Your task to perform on an android device: Add "macbook" to the cart on target, then select checkout. Image 0: 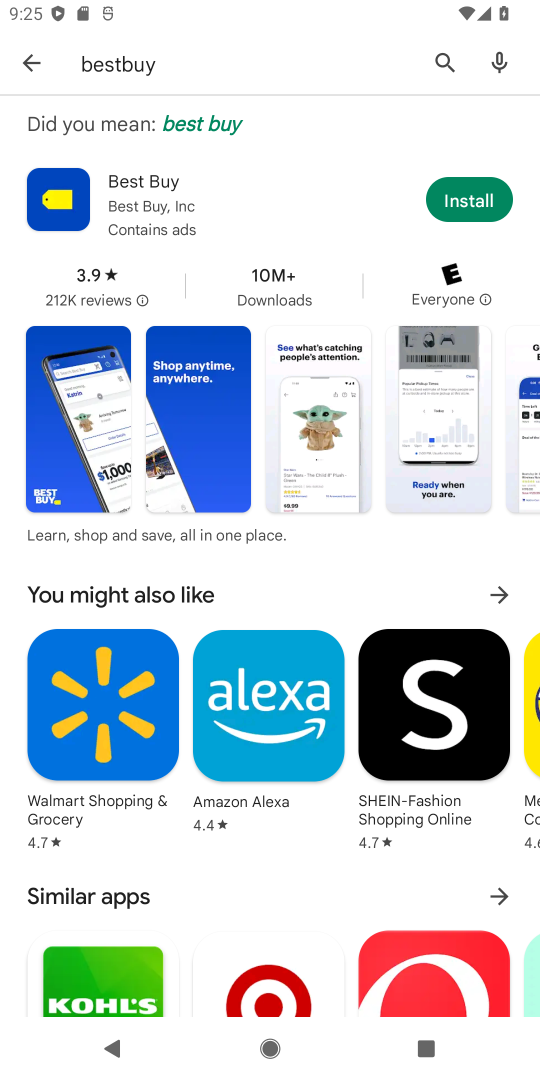
Step 0: press home button
Your task to perform on an android device: Add "macbook" to the cart on target, then select checkout. Image 1: 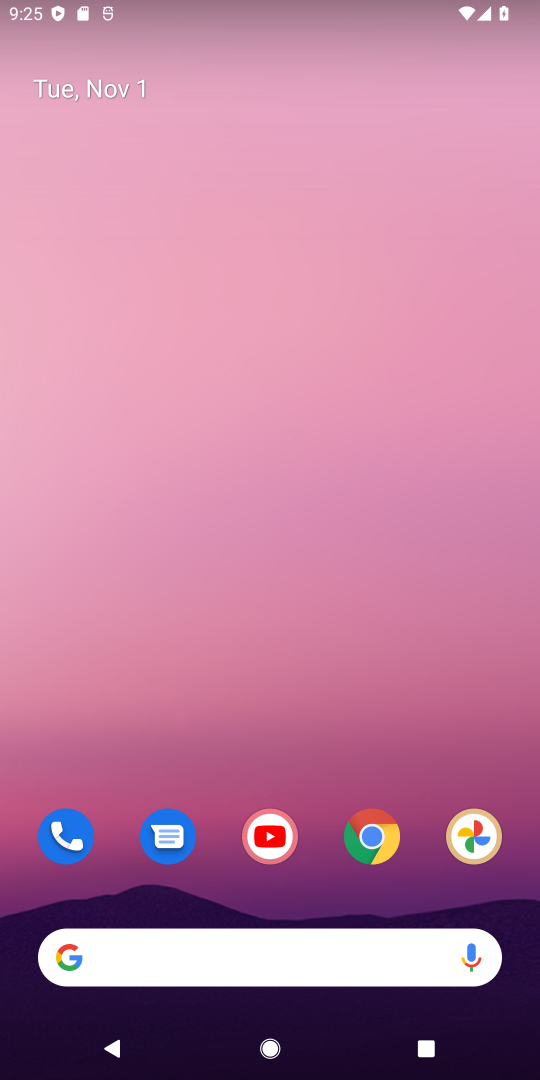
Step 1: click (369, 841)
Your task to perform on an android device: Add "macbook" to the cart on target, then select checkout. Image 2: 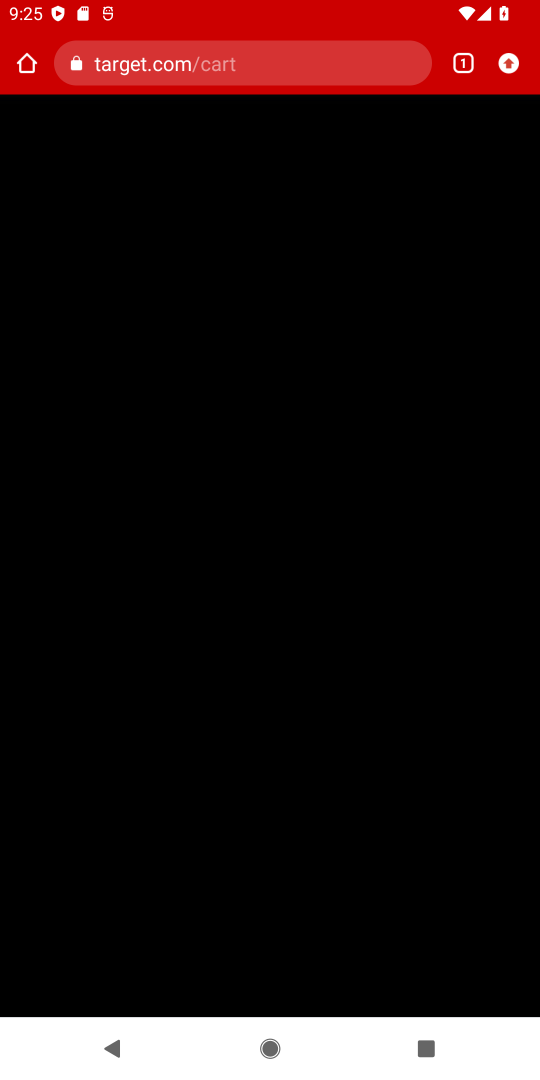
Step 2: click (278, 80)
Your task to perform on an android device: Add "macbook" to the cart on target, then select checkout. Image 3: 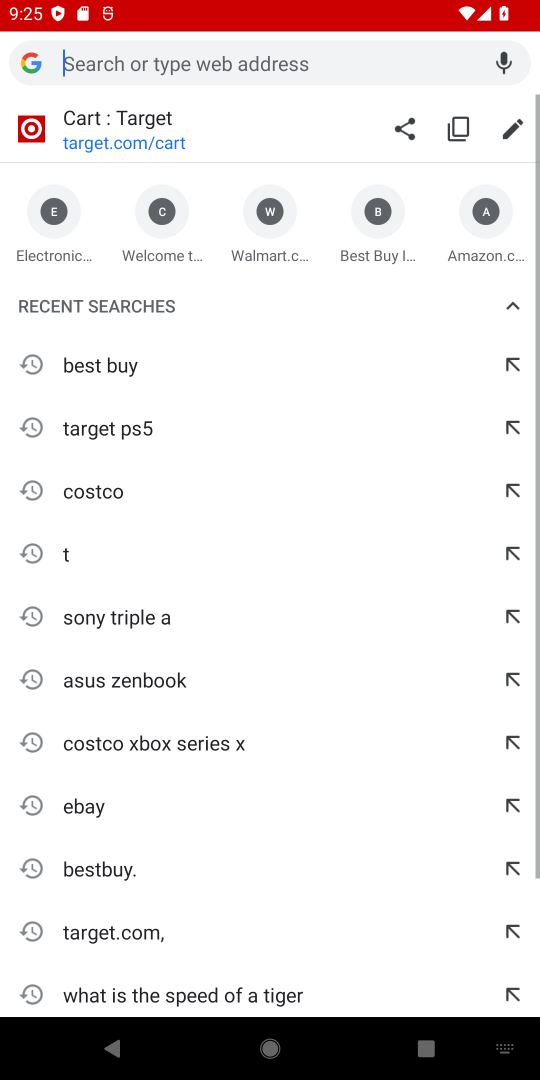
Step 3: click (151, 137)
Your task to perform on an android device: Add "macbook" to the cart on target, then select checkout. Image 4: 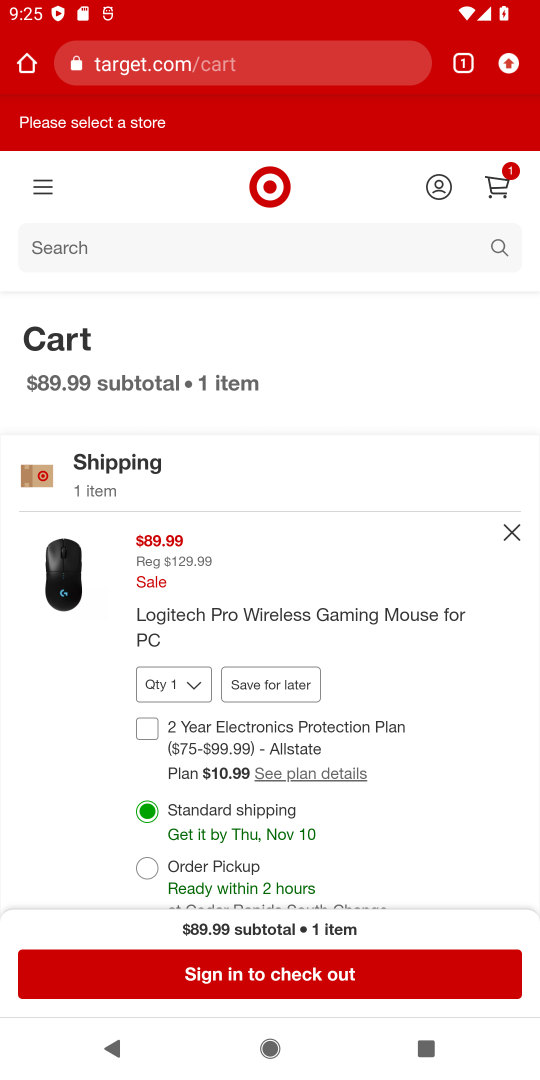
Step 4: click (497, 533)
Your task to perform on an android device: Add "macbook" to the cart on target, then select checkout. Image 5: 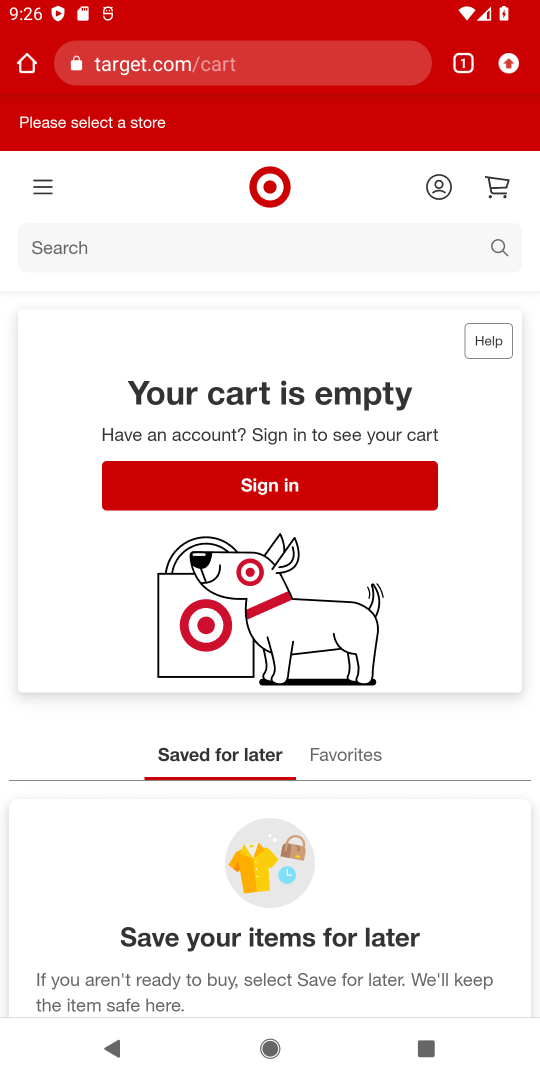
Step 5: click (124, 263)
Your task to perform on an android device: Add "macbook" to the cart on target, then select checkout. Image 6: 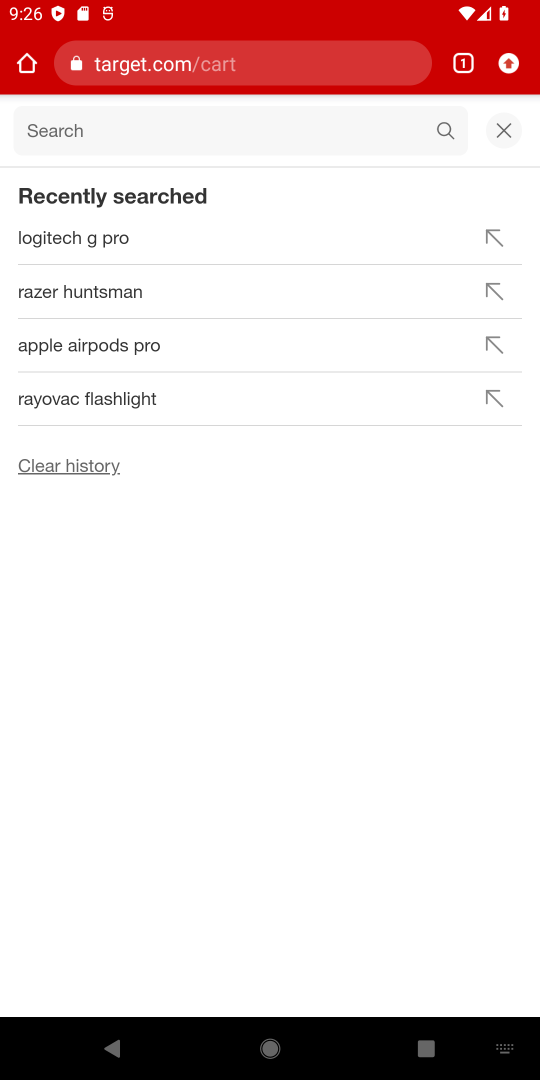
Step 6: type "macbook"
Your task to perform on an android device: Add "macbook" to the cart on target, then select checkout. Image 7: 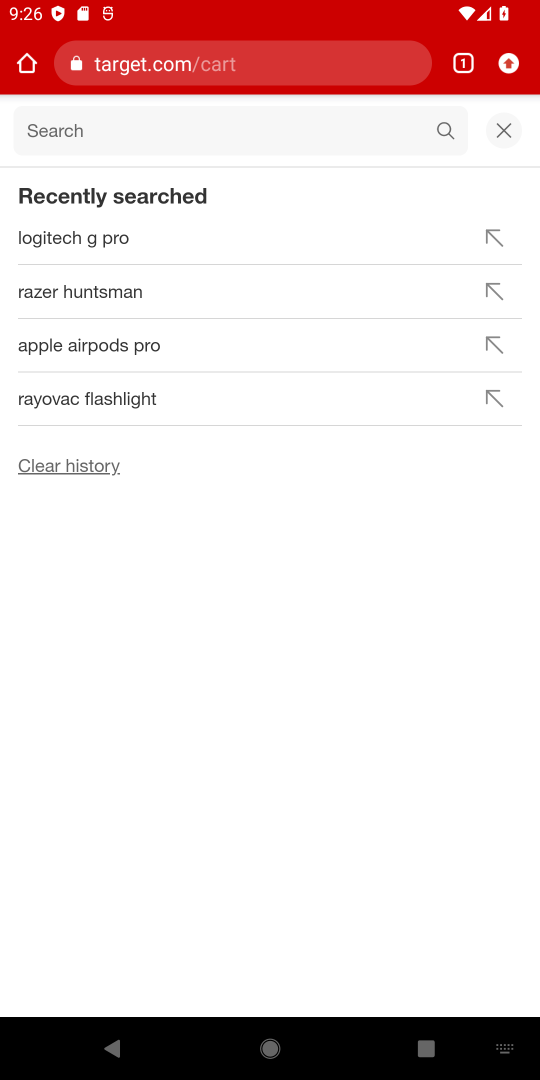
Step 7: type ""
Your task to perform on an android device: Add "macbook" to the cart on target, then select checkout. Image 8: 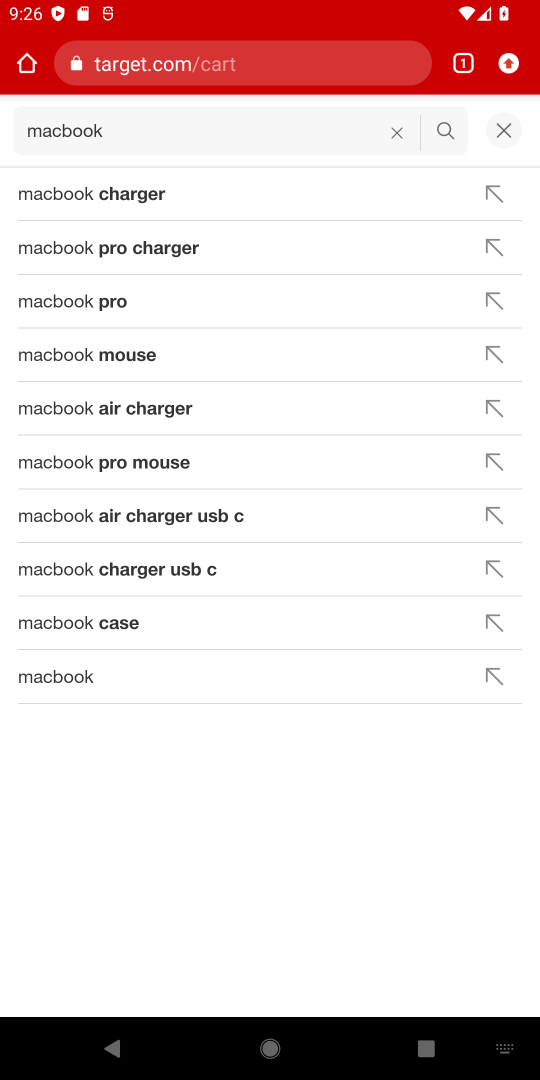
Step 8: press enter
Your task to perform on an android device: Add "macbook" to the cart on target, then select checkout. Image 9: 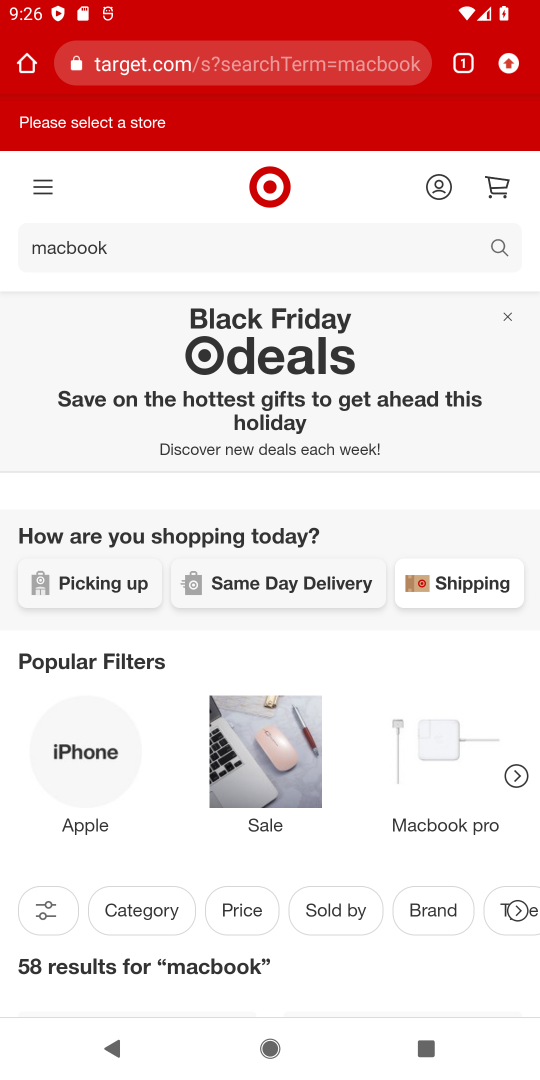
Step 9: drag from (423, 833) to (416, 375)
Your task to perform on an android device: Add "macbook" to the cart on target, then select checkout. Image 10: 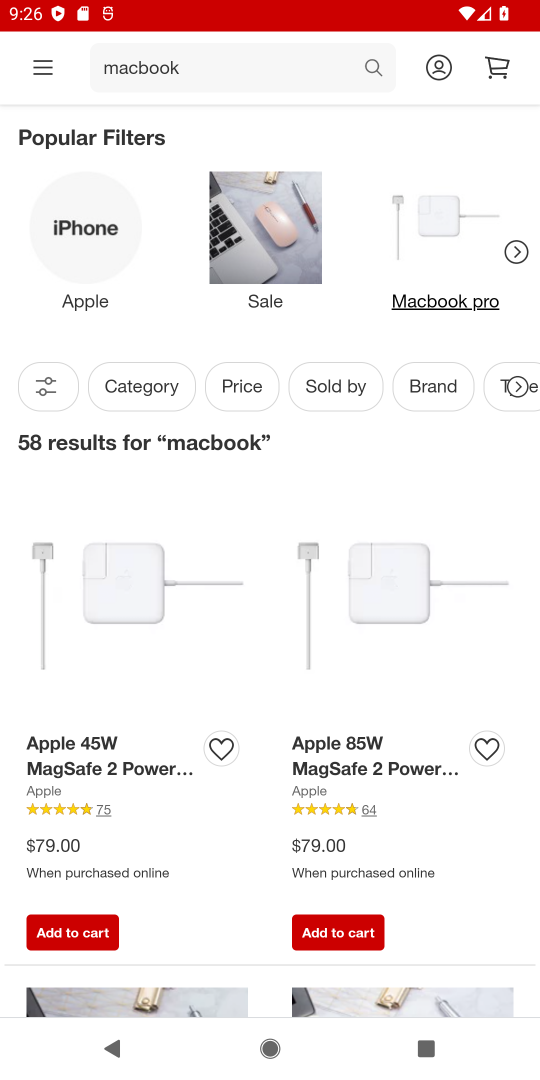
Step 10: drag from (382, 561) to (419, 393)
Your task to perform on an android device: Add "macbook" to the cart on target, then select checkout. Image 11: 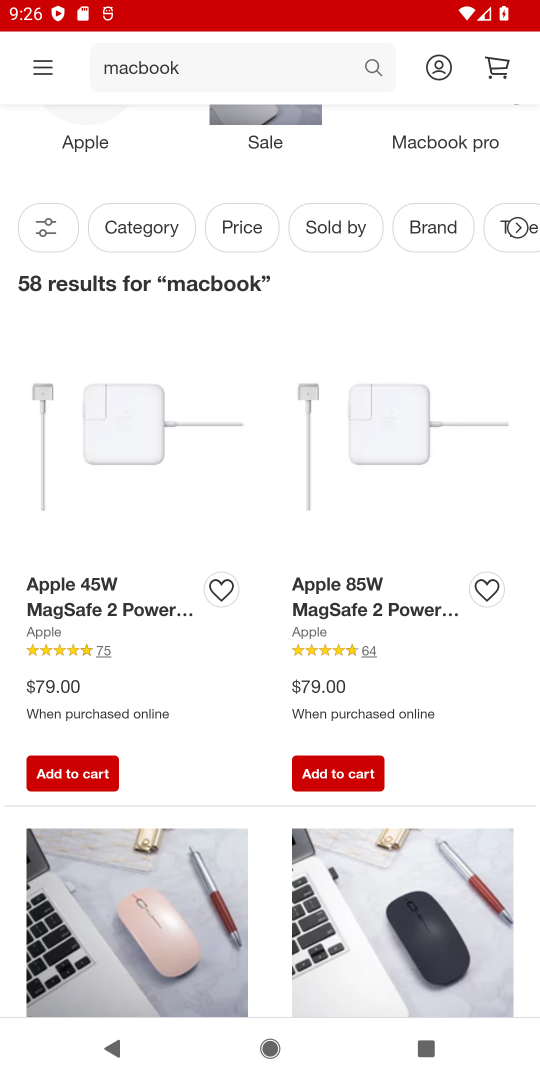
Step 11: drag from (481, 651) to (501, 362)
Your task to perform on an android device: Add "macbook" to the cart on target, then select checkout. Image 12: 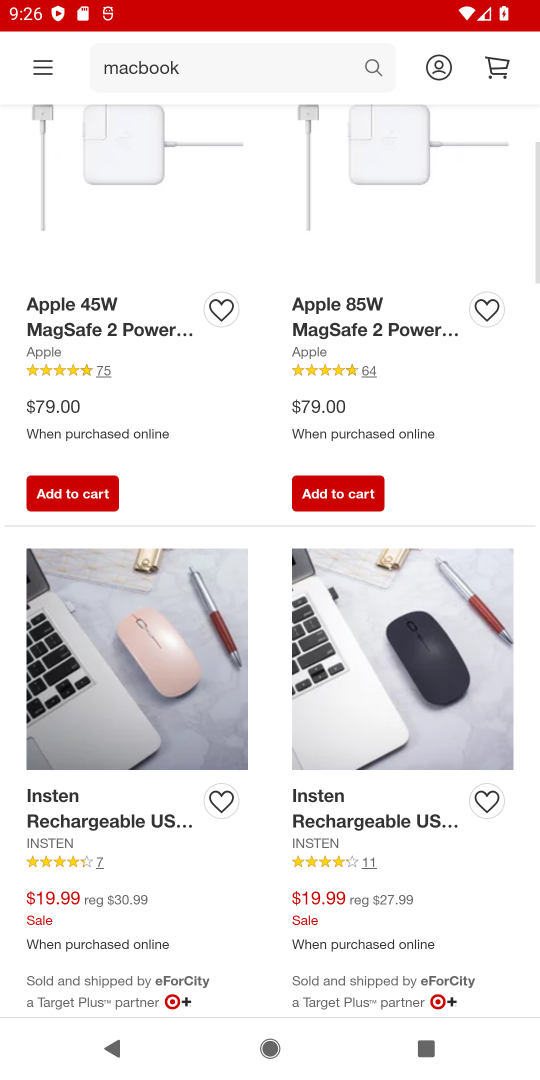
Step 12: drag from (333, 721) to (377, 420)
Your task to perform on an android device: Add "macbook" to the cart on target, then select checkout. Image 13: 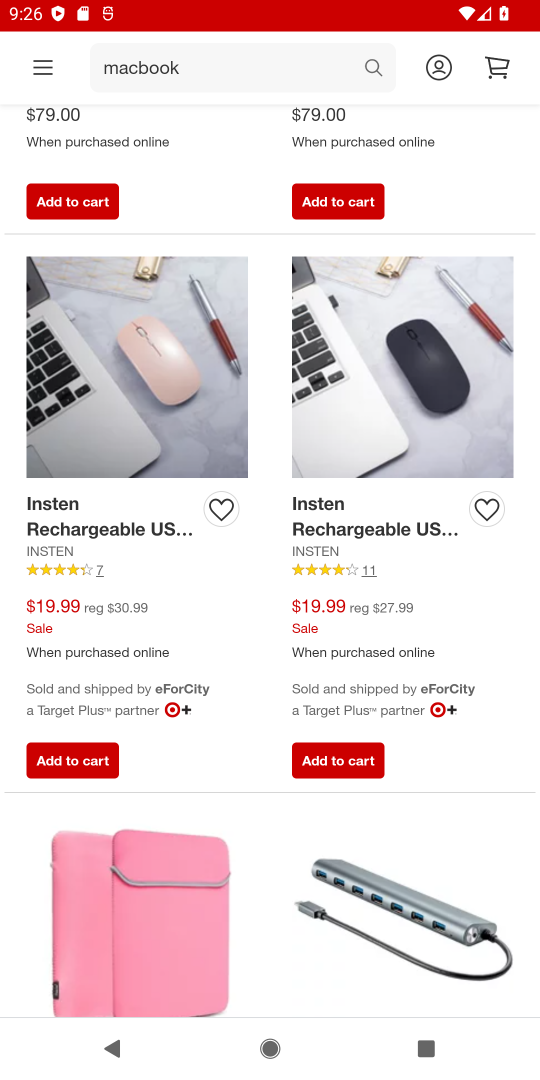
Step 13: drag from (303, 819) to (416, 296)
Your task to perform on an android device: Add "macbook" to the cart on target, then select checkout. Image 14: 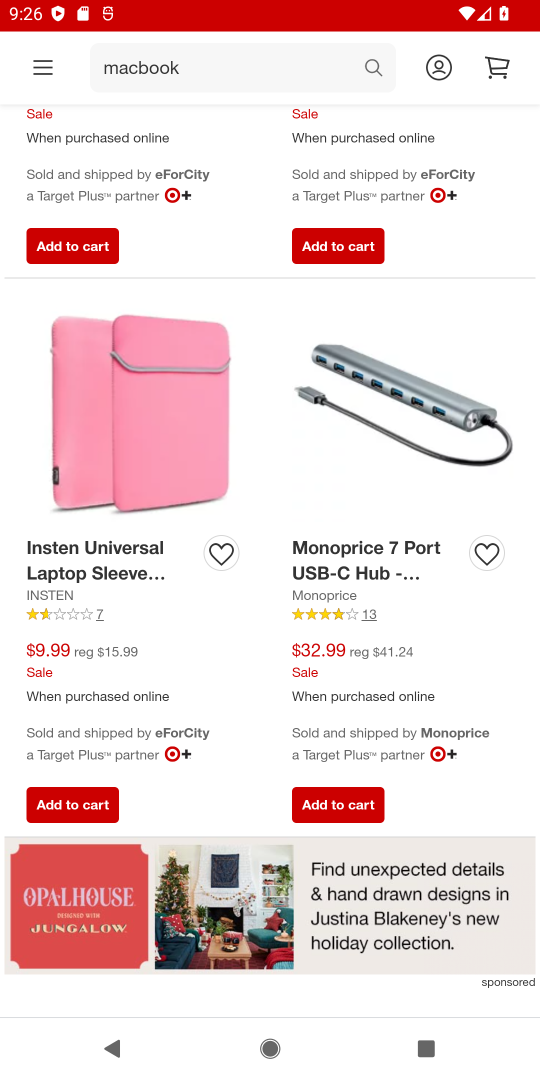
Step 14: drag from (351, 745) to (380, 317)
Your task to perform on an android device: Add "macbook" to the cart on target, then select checkout. Image 15: 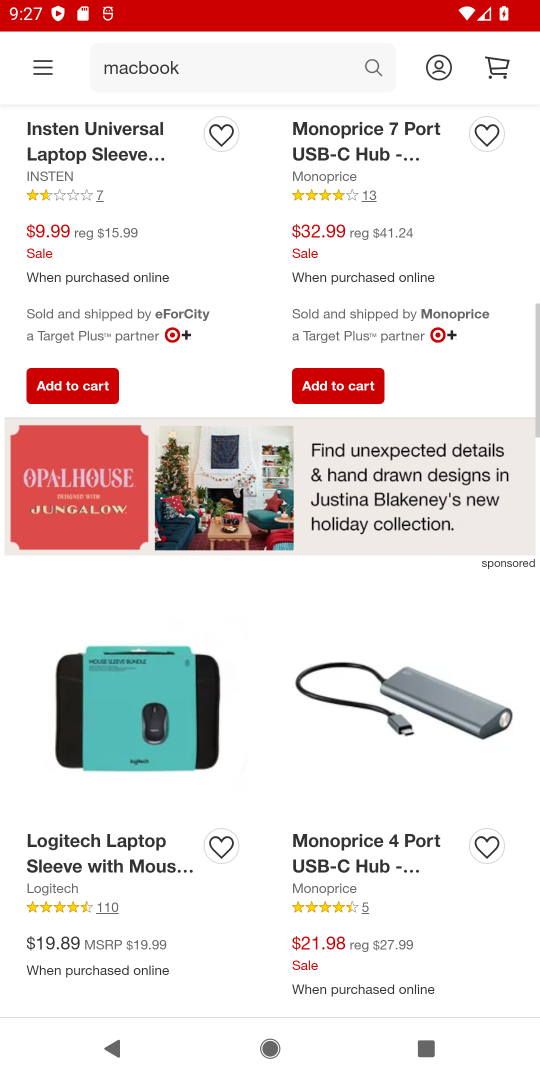
Step 15: drag from (299, 794) to (340, 486)
Your task to perform on an android device: Add "macbook" to the cart on target, then select checkout. Image 16: 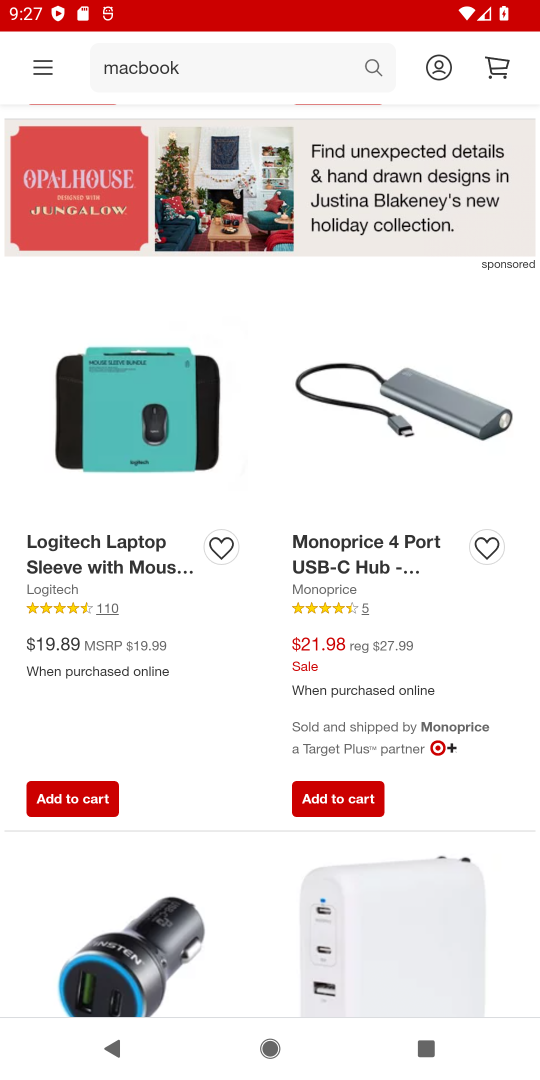
Step 16: click (294, 63)
Your task to perform on an android device: Add "macbook" to the cart on target, then select checkout. Image 17: 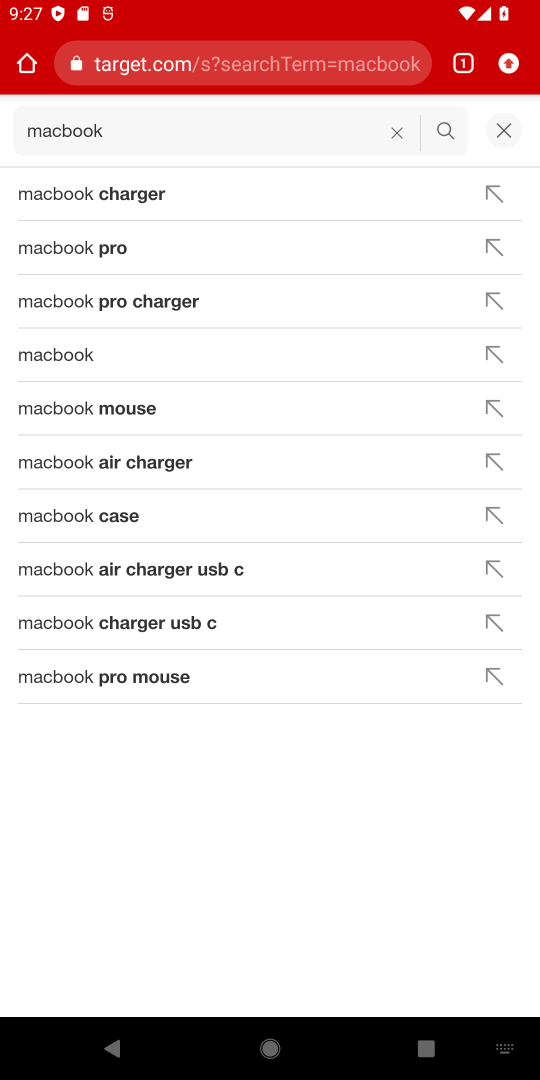
Step 17: type " pr"
Your task to perform on an android device: Add "macbook" to the cart on target, then select checkout. Image 18: 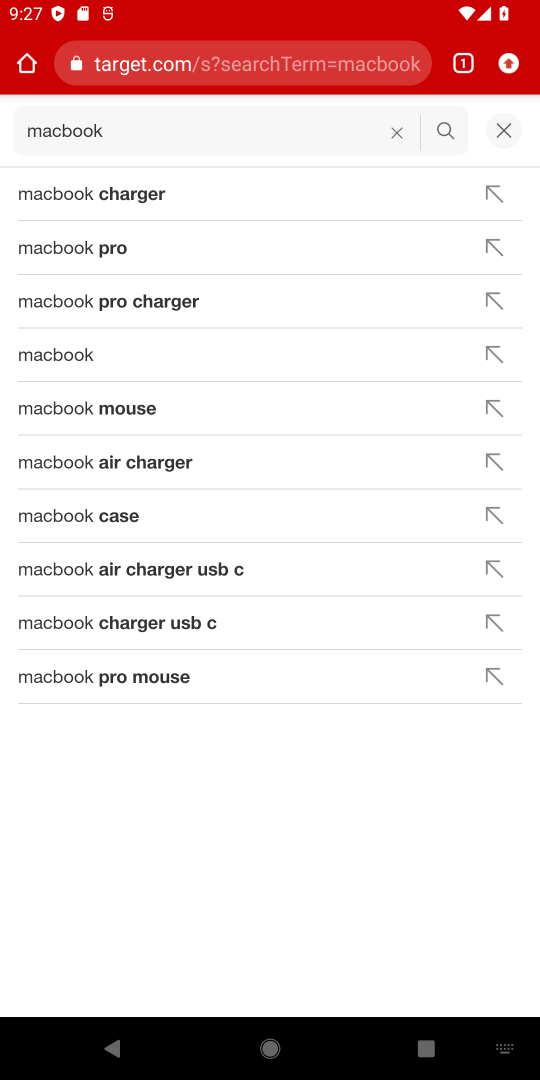
Step 18: click (103, 255)
Your task to perform on an android device: Add "macbook" to the cart on target, then select checkout. Image 19: 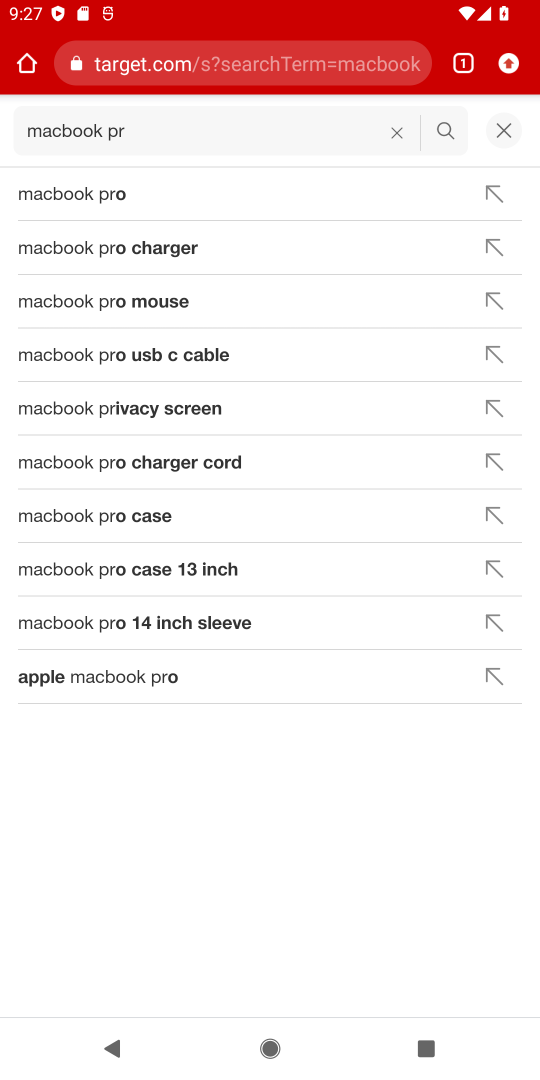
Step 19: click (107, 203)
Your task to perform on an android device: Add "macbook" to the cart on target, then select checkout. Image 20: 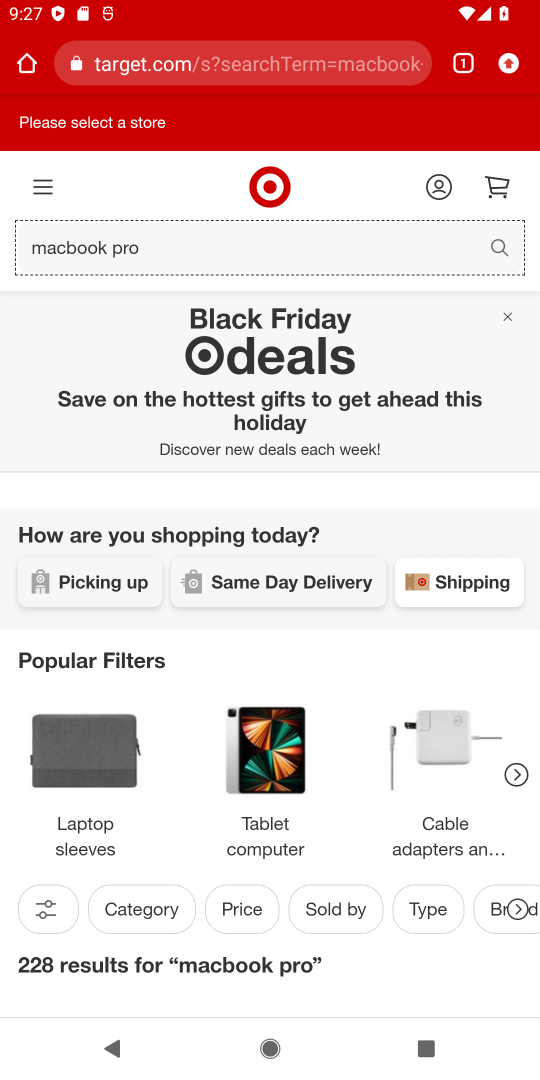
Step 20: task complete